Your task to perform on an android device: show emergency info Image 0: 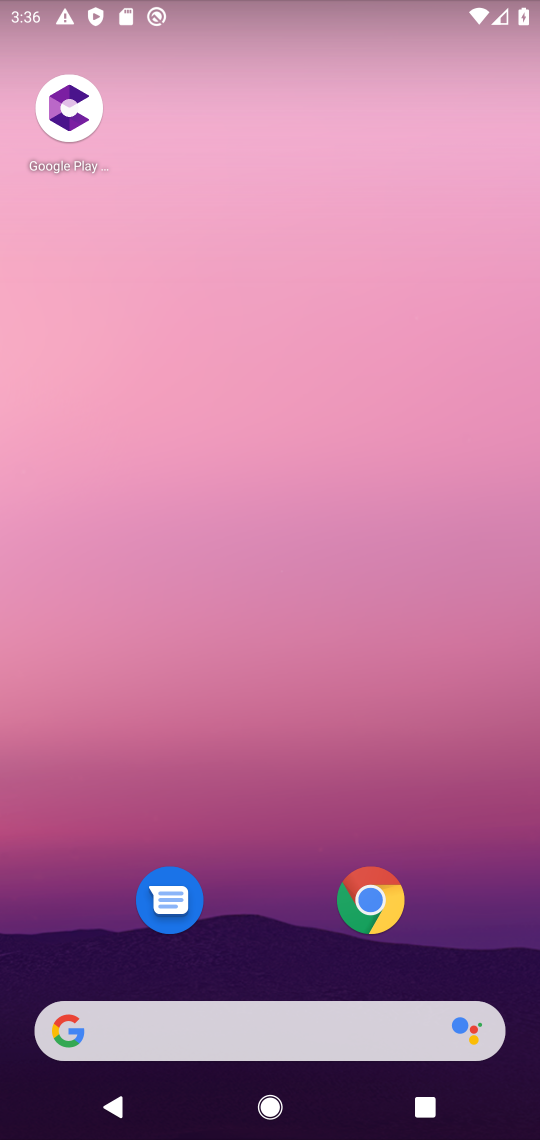
Step 0: drag from (277, 419) to (240, 29)
Your task to perform on an android device: show emergency info Image 1: 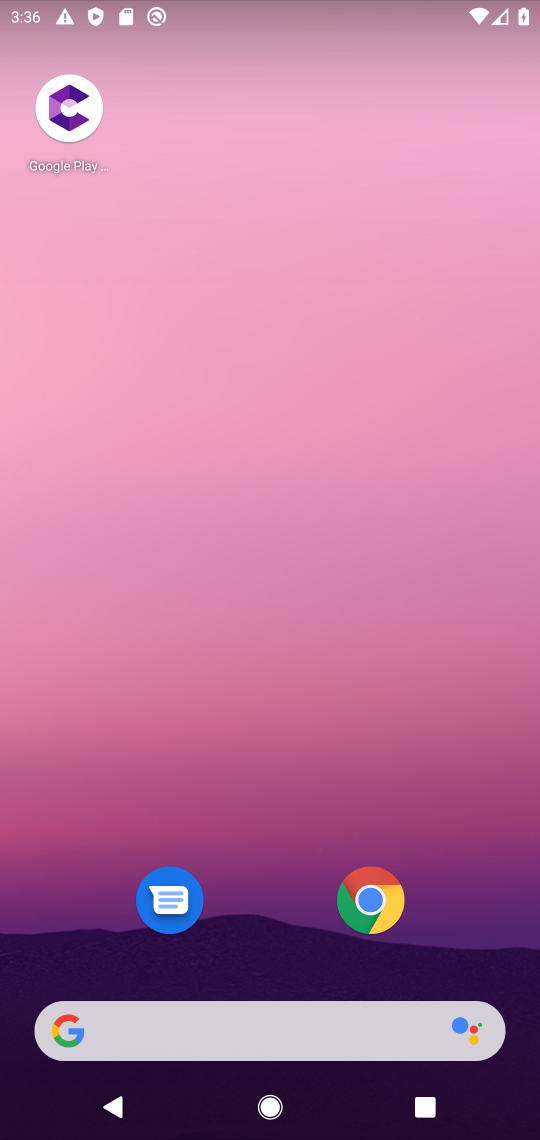
Step 1: drag from (236, 922) to (223, 394)
Your task to perform on an android device: show emergency info Image 2: 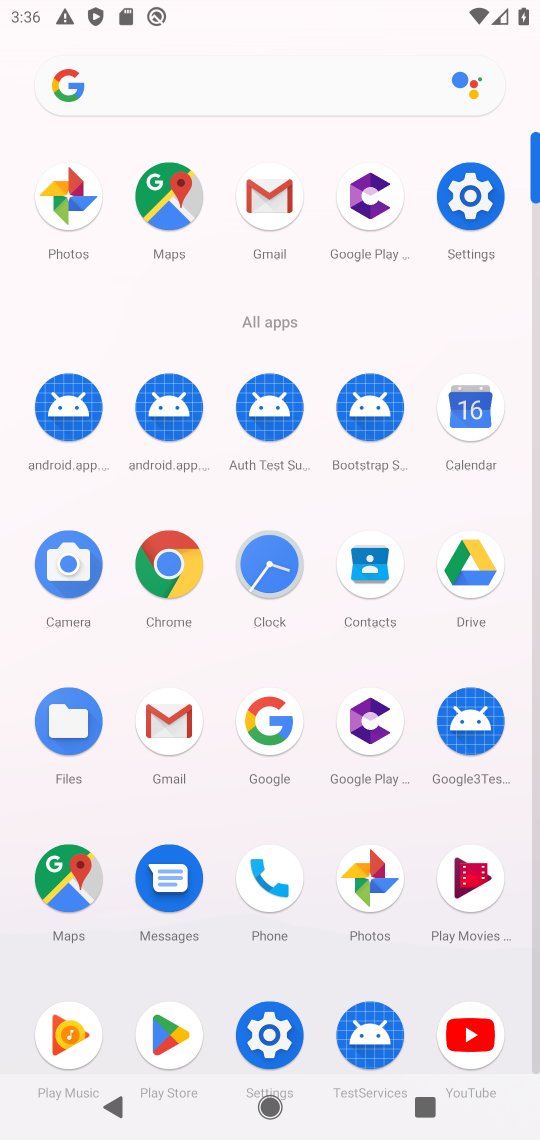
Step 2: drag from (253, 827) to (218, 0)
Your task to perform on an android device: show emergency info Image 3: 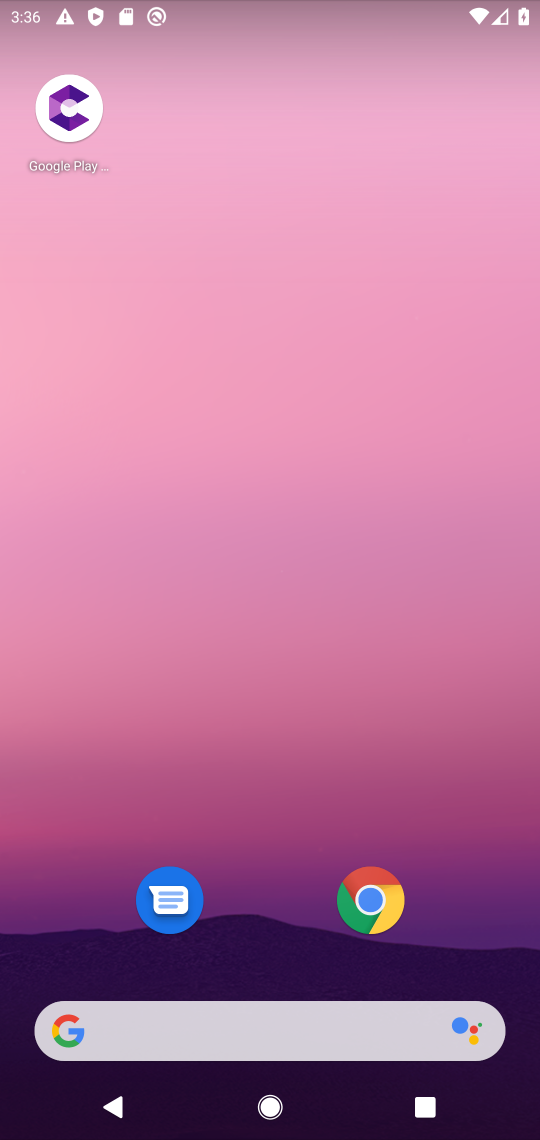
Step 3: drag from (295, 955) to (269, 266)
Your task to perform on an android device: show emergency info Image 4: 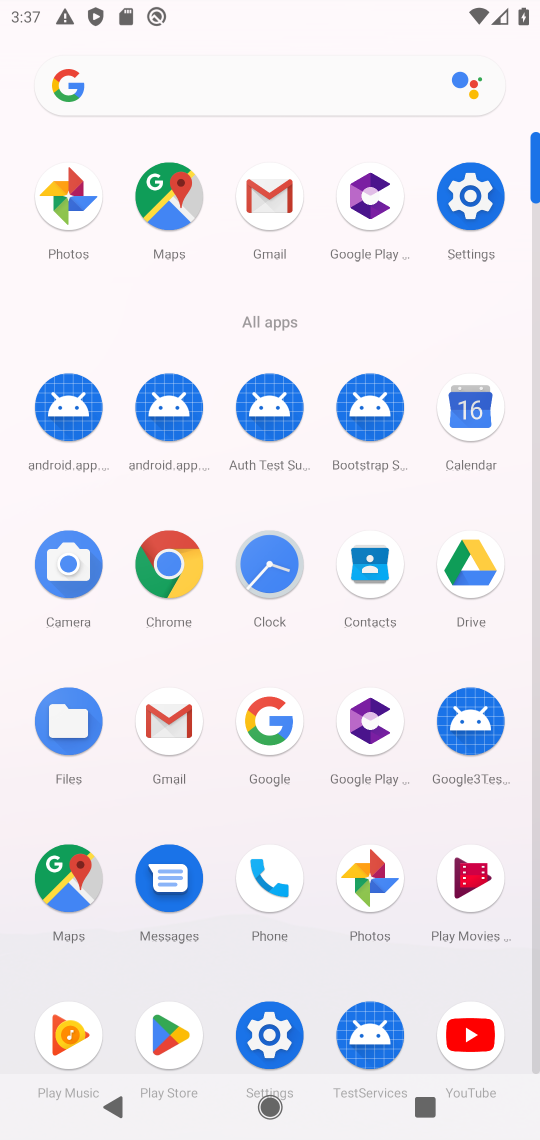
Step 4: click (269, 1015)
Your task to perform on an android device: show emergency info Image 5: 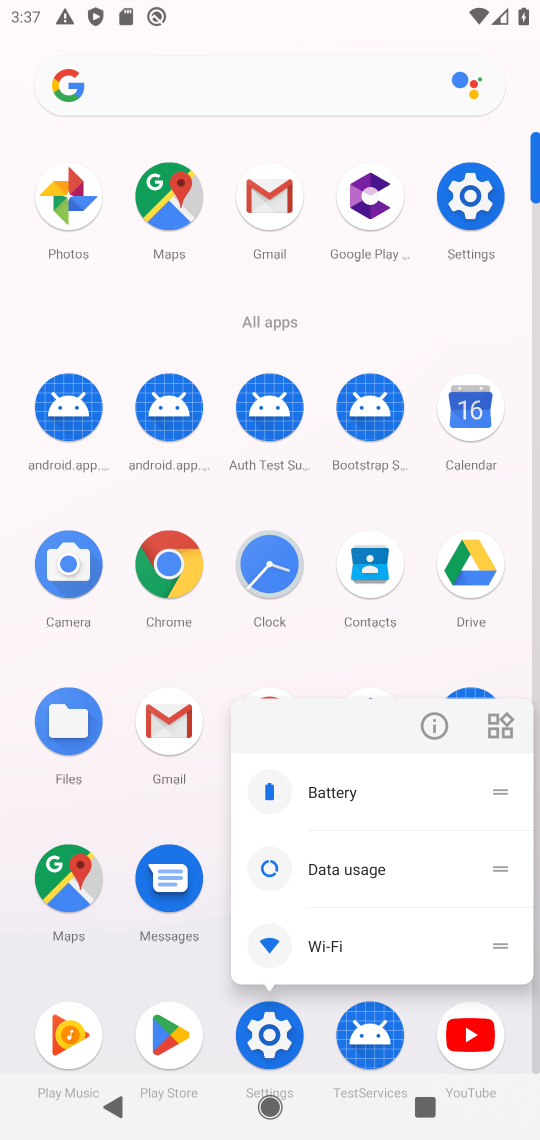
Step 5: click (270, 1023)
Your task to perform on an android device: show emergency info Image 6: 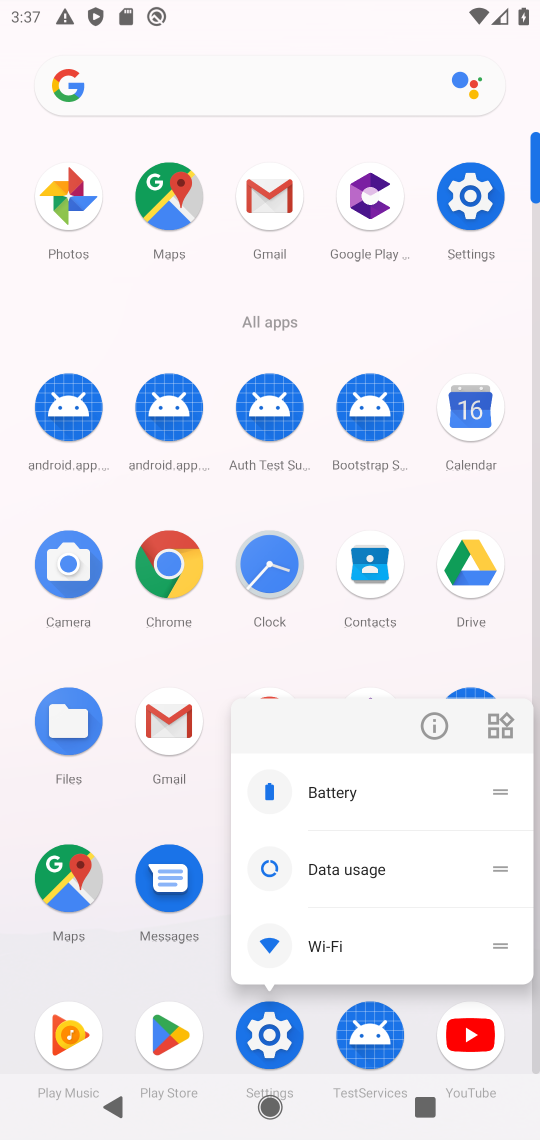
Step 6: click (263, 1029)
Your task to perform on an android device: show emergency info Image 7: 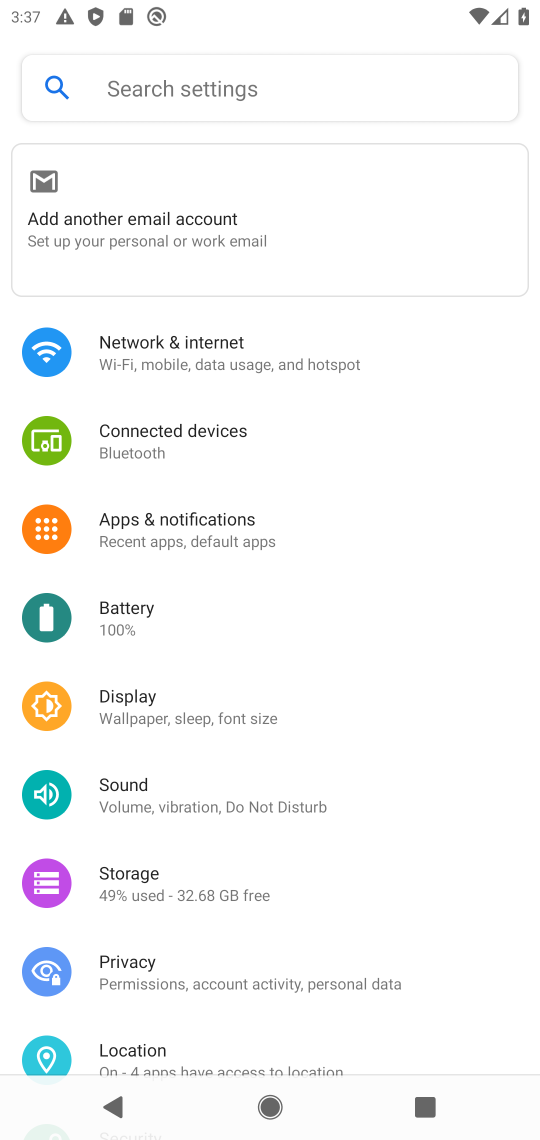
Step 7: drag from (269, 936) to (315, 80)
Your task to perform on an android device: show emergency info Image 8: 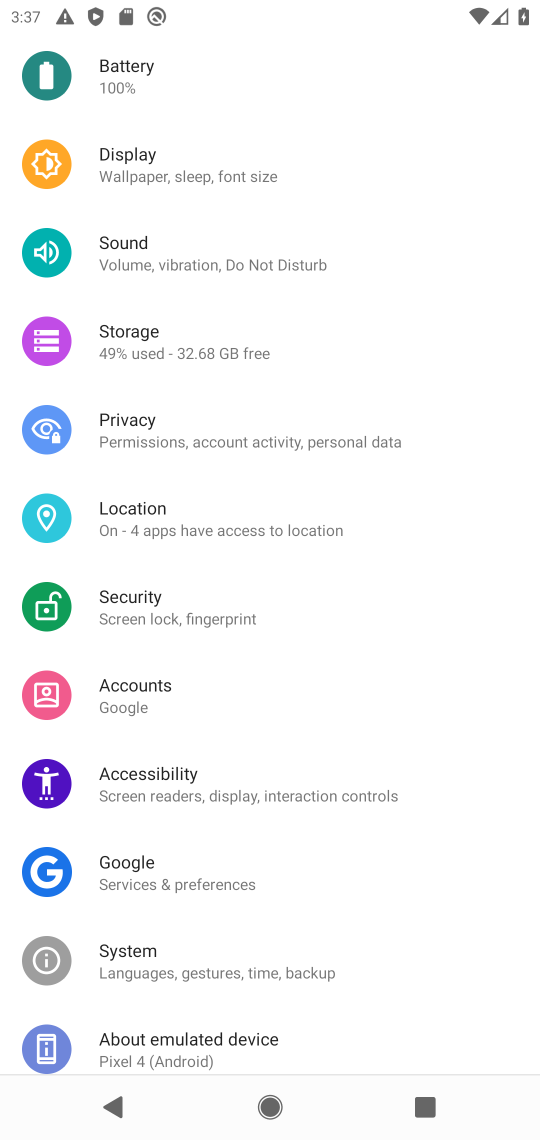
Step 8: drag from (192, 585) to (220, 187)
Your task to perform on an android device: show emergency info Image 9: 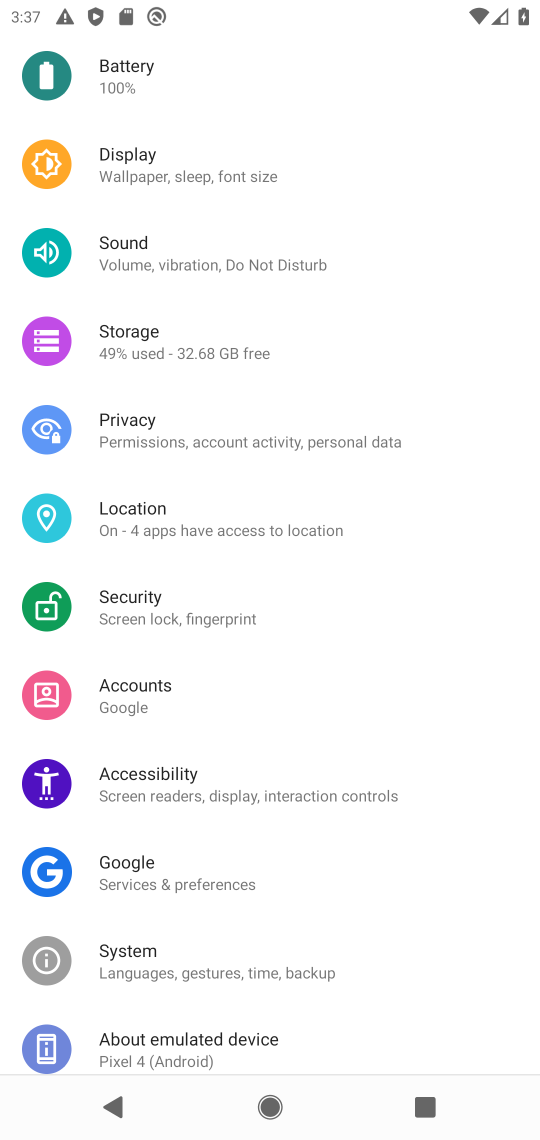
Step 9: click (213, 603)
Your task to perform on an android device: show emergency info Image 10: 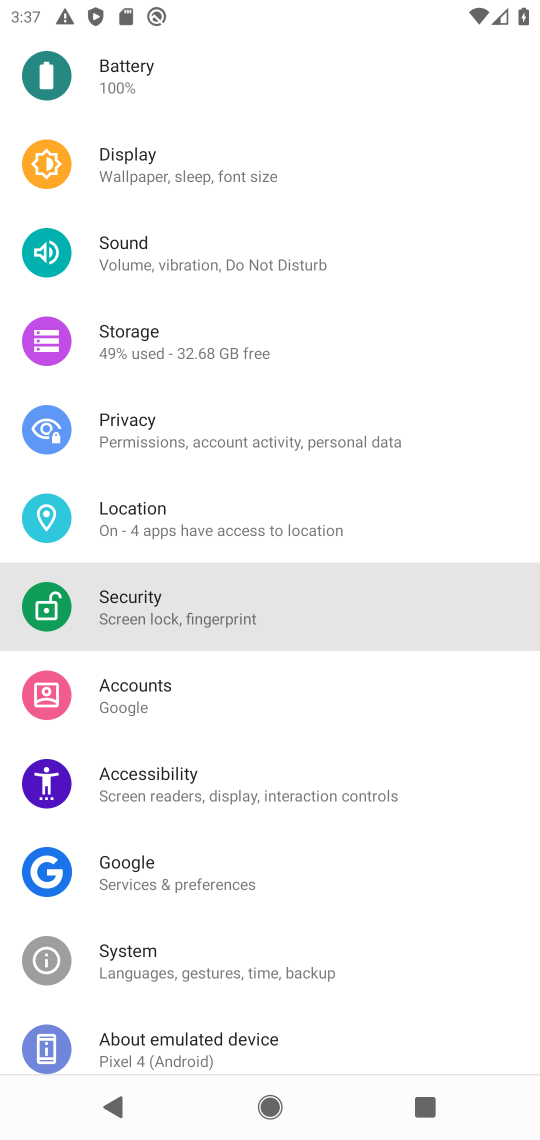
Step 10: click (173, 1035)
Your task to perform on an android device: show emergency info Image 11: 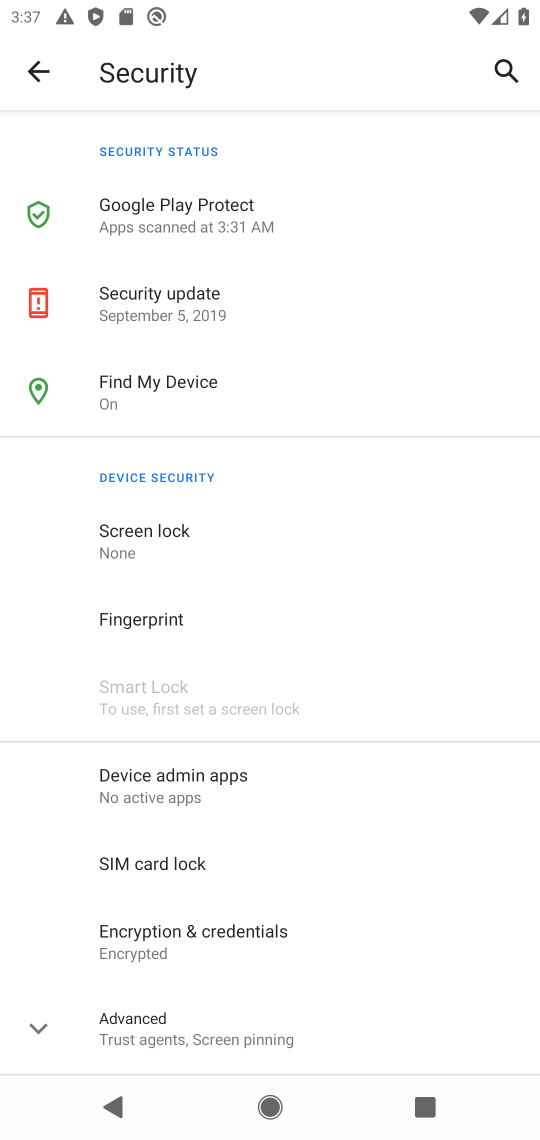
Step 11: click (35, 67)
Your task to perform on an android device: show emergency info Image 12: 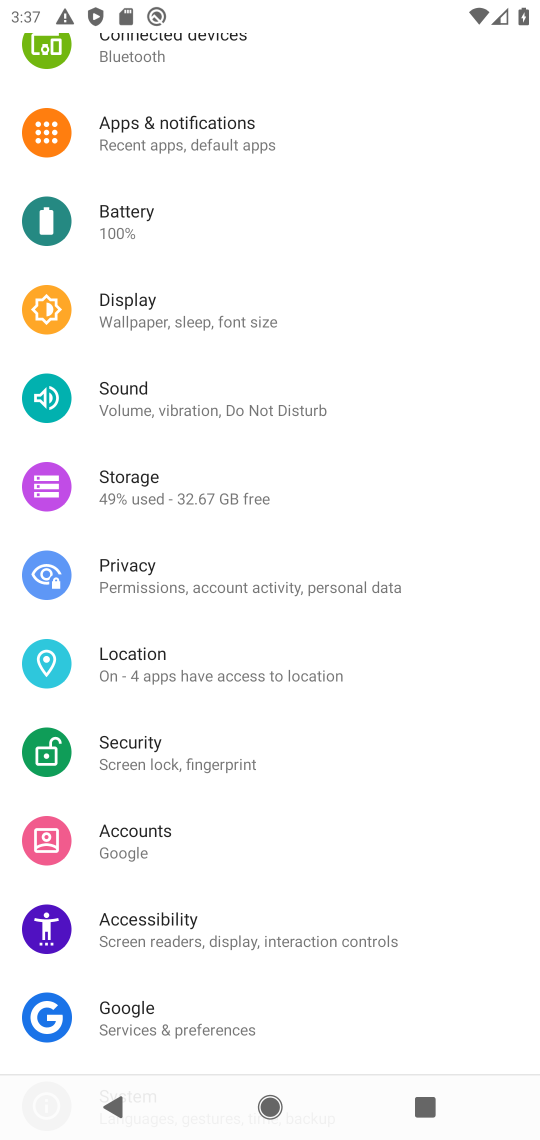
Step 12: drag from (287, 583) to (342, 39)
Your task to perform on an android device: show emergency info Image 13: 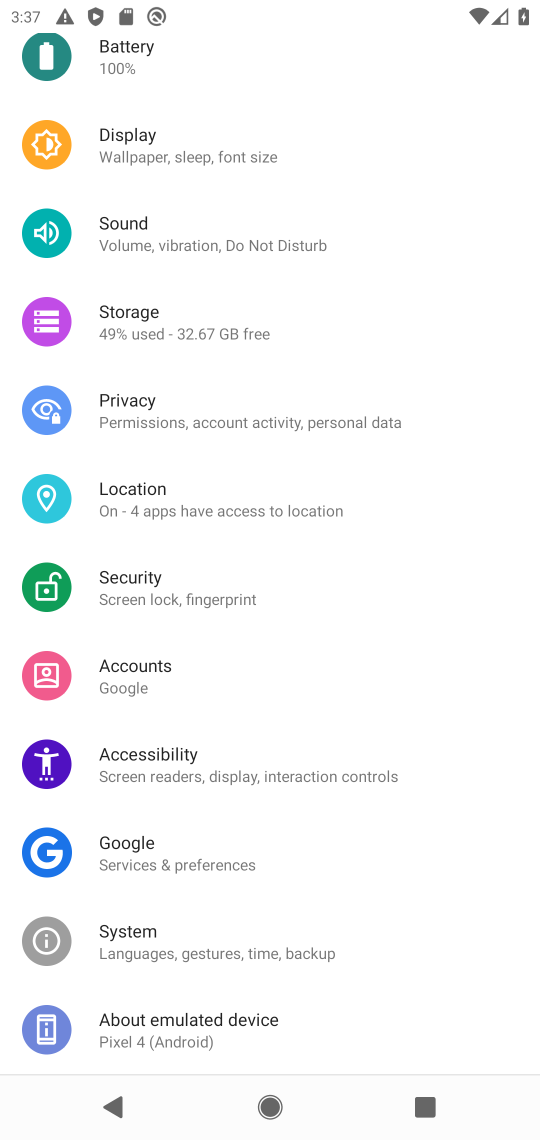
Step 13: drag from (293, 889) to (318, 586)
Your task to perform on an android device: show emergency info Image 14: 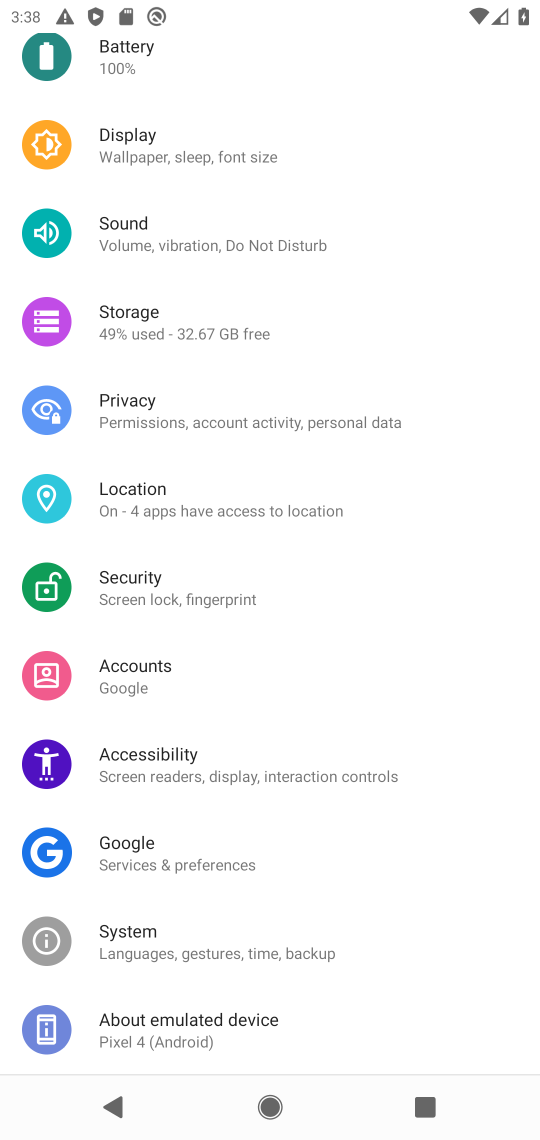
Step 14: click (189, 1023)
Your task to perform on an android device: show emergency info Image 15: 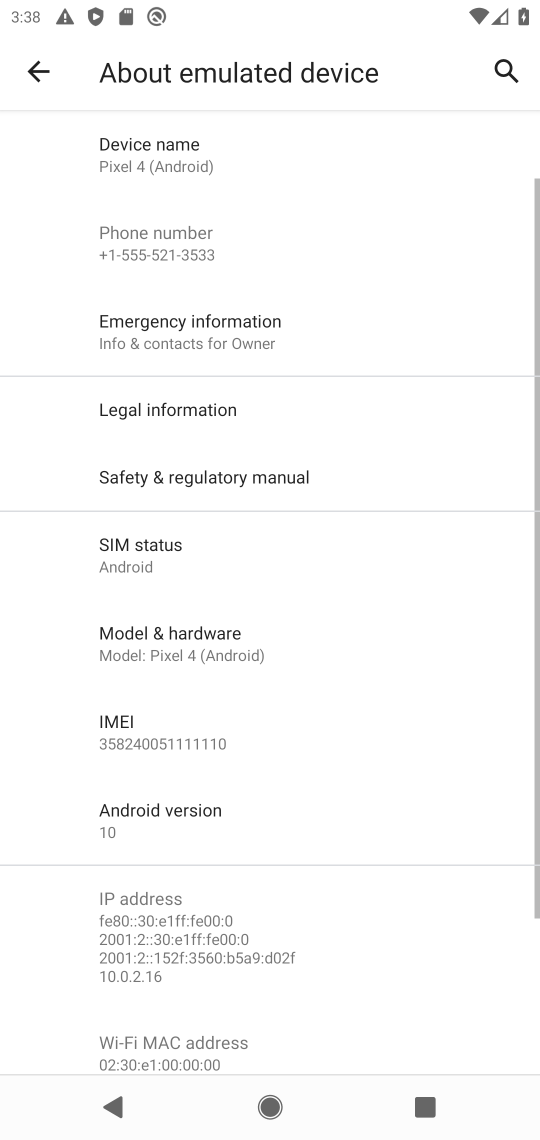
Step 15: click (247, 327)
Your task to perform on an android device: show emergency info Image 16: 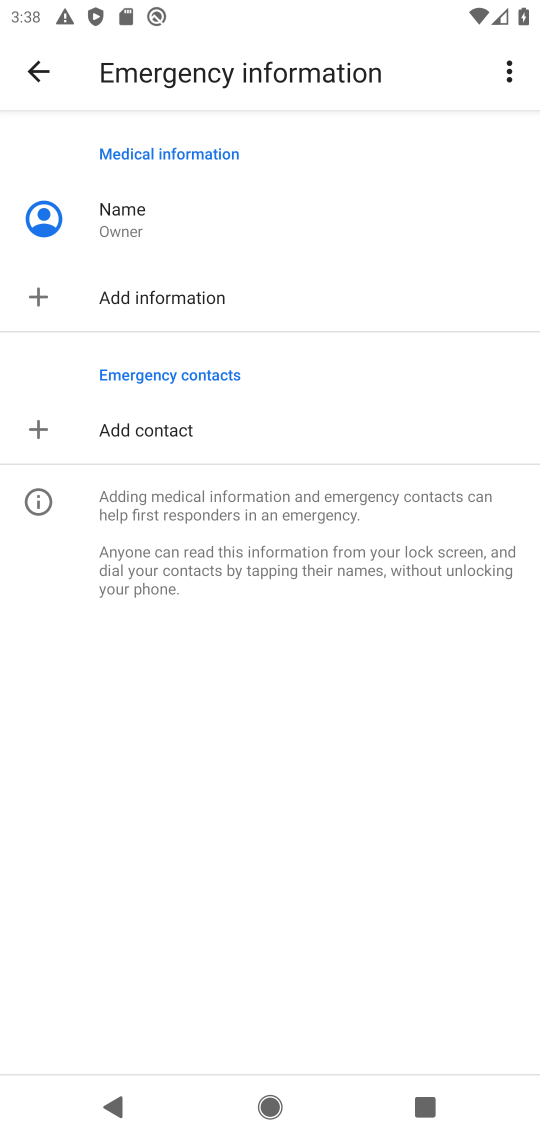
Step 16: task complete